Your task to perform on an android device: turn off location Image 0: 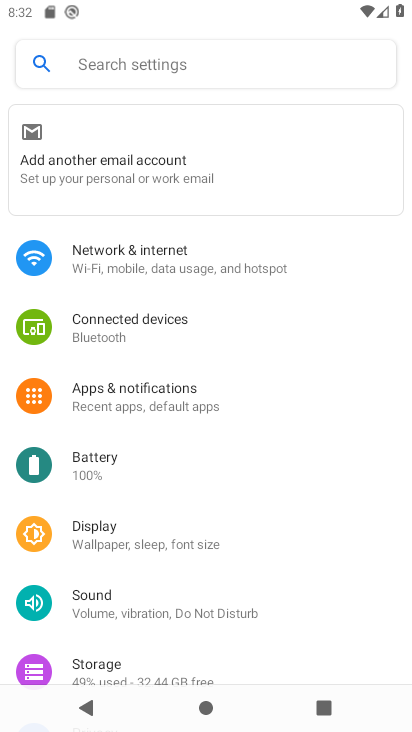
Step 0: drag from (211, 630) to (215, 202)
Your task to perform on an android device: turn off location Image 1: 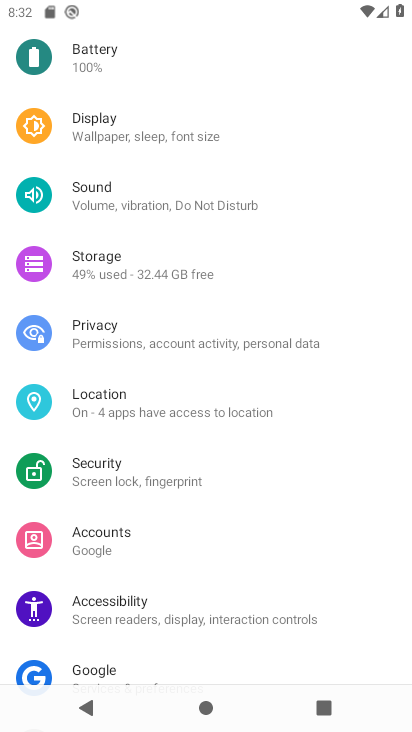
Step 1: click (173, 400)
Your task to perform on an android device: turn off location Image 2: 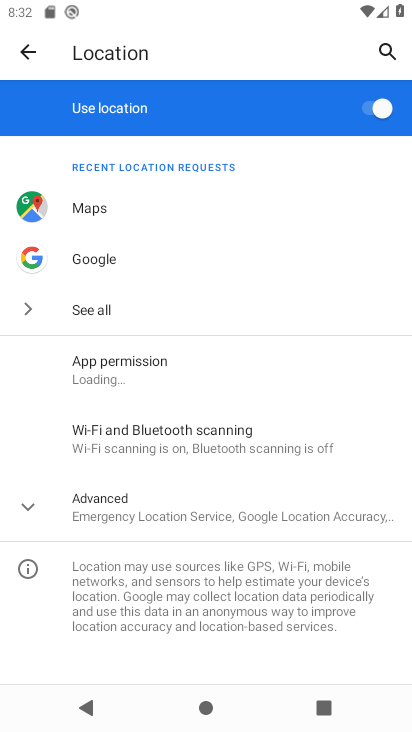
Step 2: click (373, 106)
Your task to perform on an android device: turn off location Image 3: 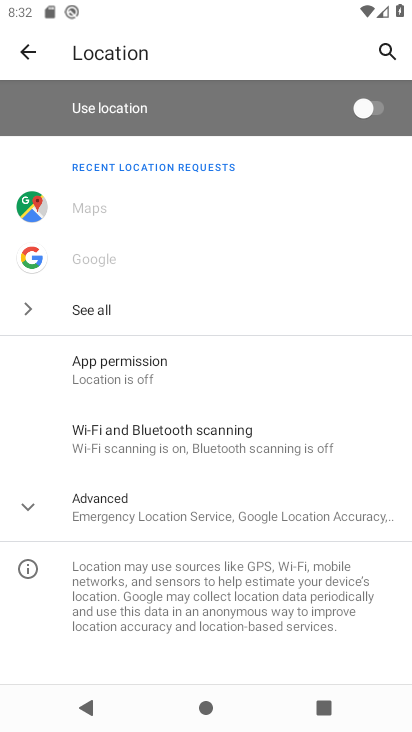
Step 3: task complete